Your task to perform on an android device: Search for the new Nintendo switch on Walmart. Image 0: 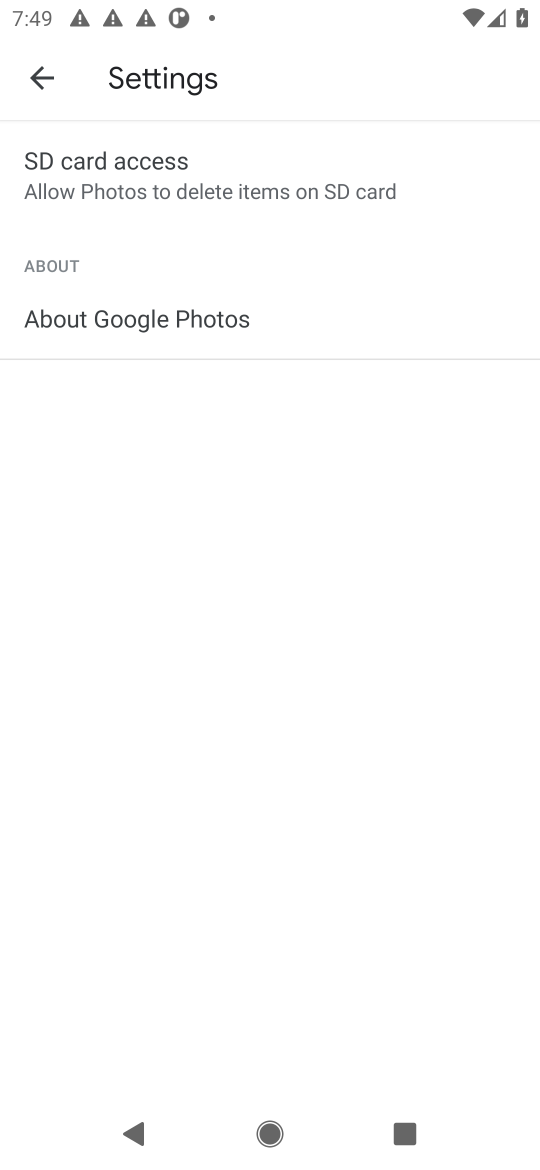
Step 0: press home button
Your task to perform on an android device: Search for the new Nintendo switch on Walmart. Image 1: 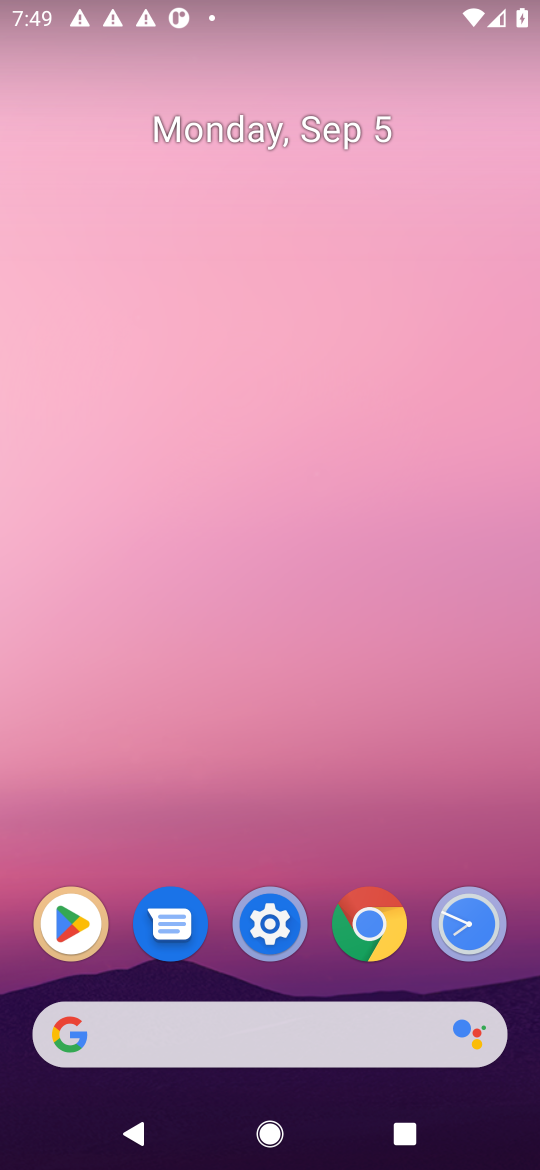
Step 1: click (388, 1048)
Your task to perform on an android device: Search for the new Nintendo switch on Walmart. Image 2: 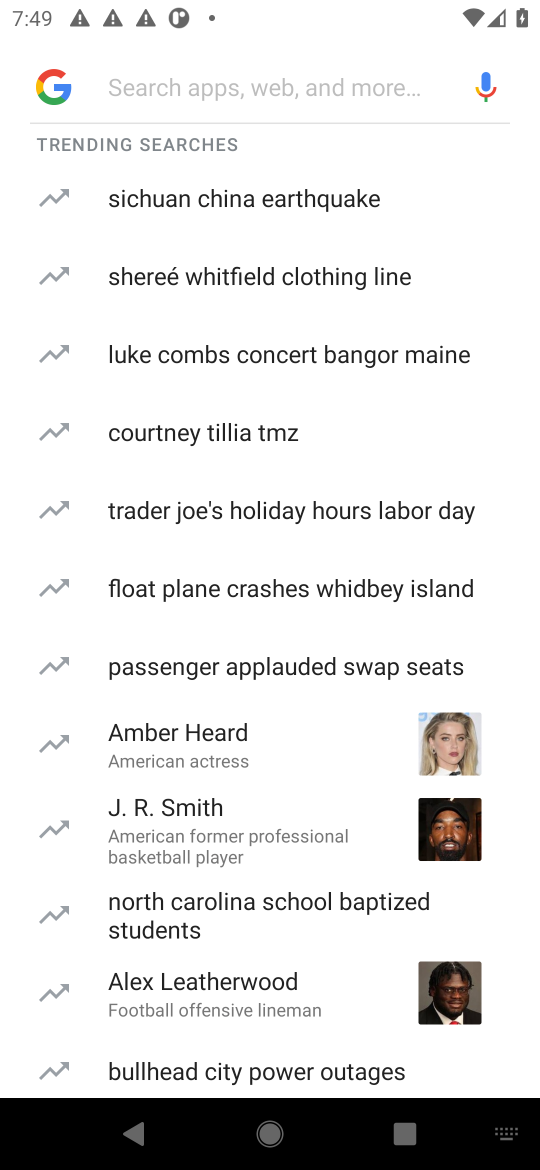
Step 2: press enter
Your task to perform on an android device: Search for the new Nintendo switch on Walmart. Image 3: 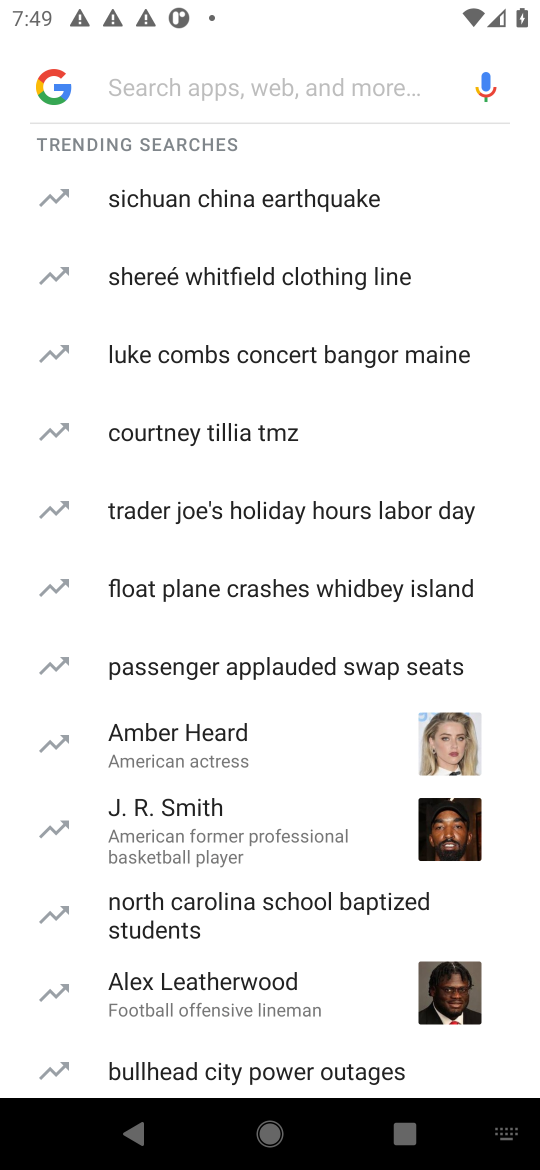
Step 3: type "walmart"
Your task to perform on an android device: Search for the new Nintendo switch on Walmart. Image 4: 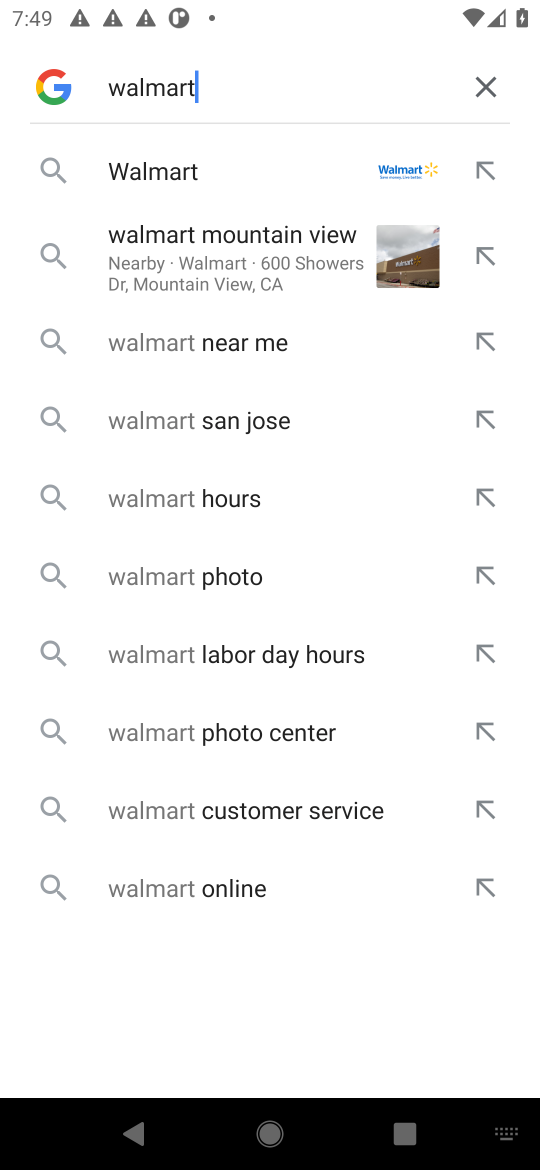
Step 4: click (239, 166)
Your task to perform on an android device: Search for the new Nintendo switch on Walmart. Image 5: 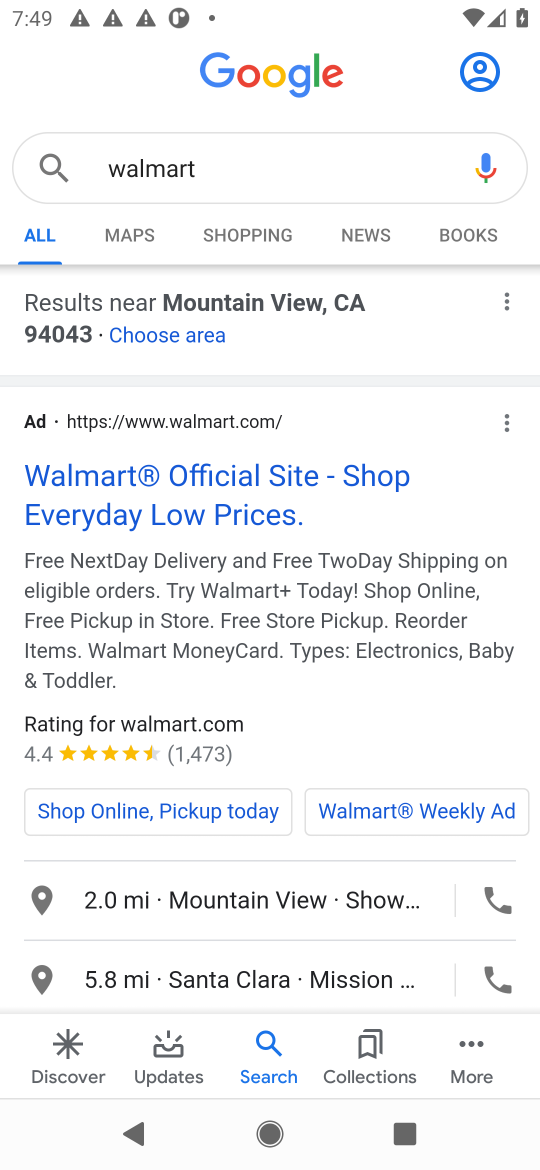
Step 5: click (306, 509)
Your task to perform on an android device: Search for the new Nintendo switch on Walmart. Image 6: 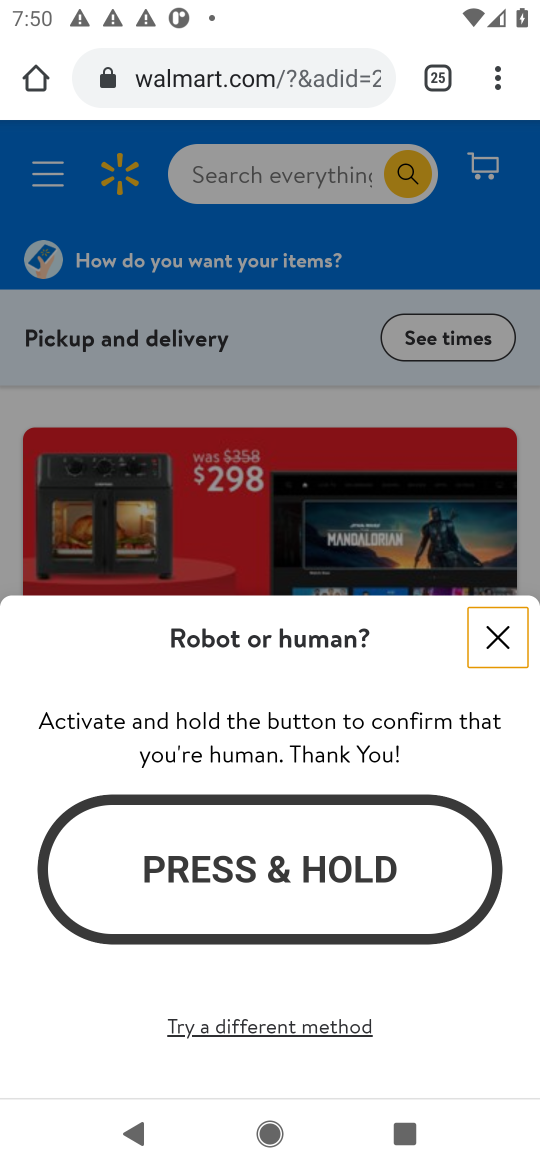
Step 6: click (495, 636)
Your task to perform on an android device: Search for the new Nintendo switch on Walmart. Image 7: 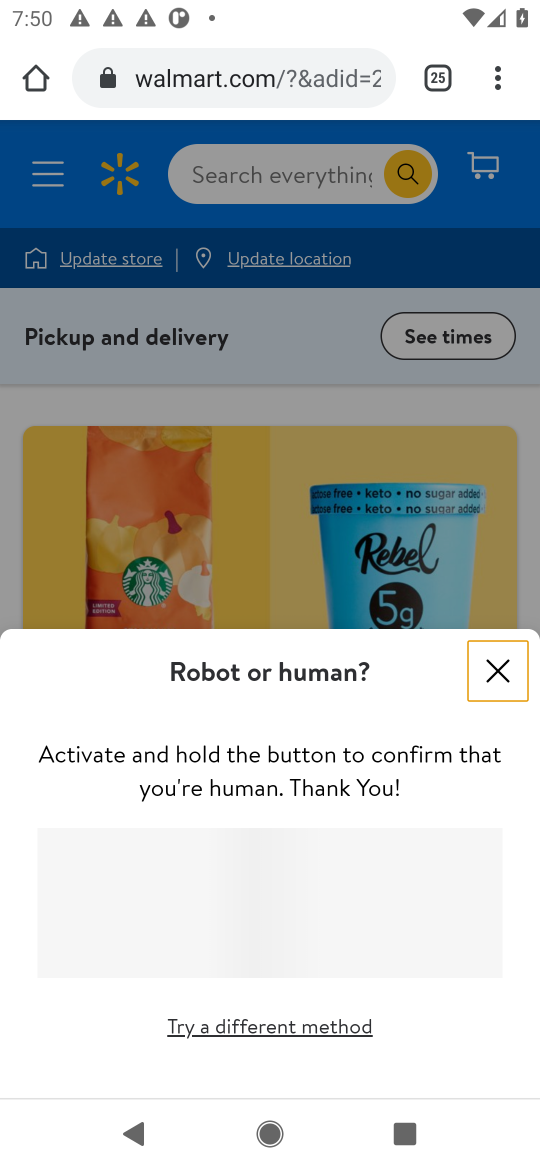
Step 7: click (250, 167)
Your task to perform on an android device: Search for the new Nintendo switch on Walmart. Image 8: 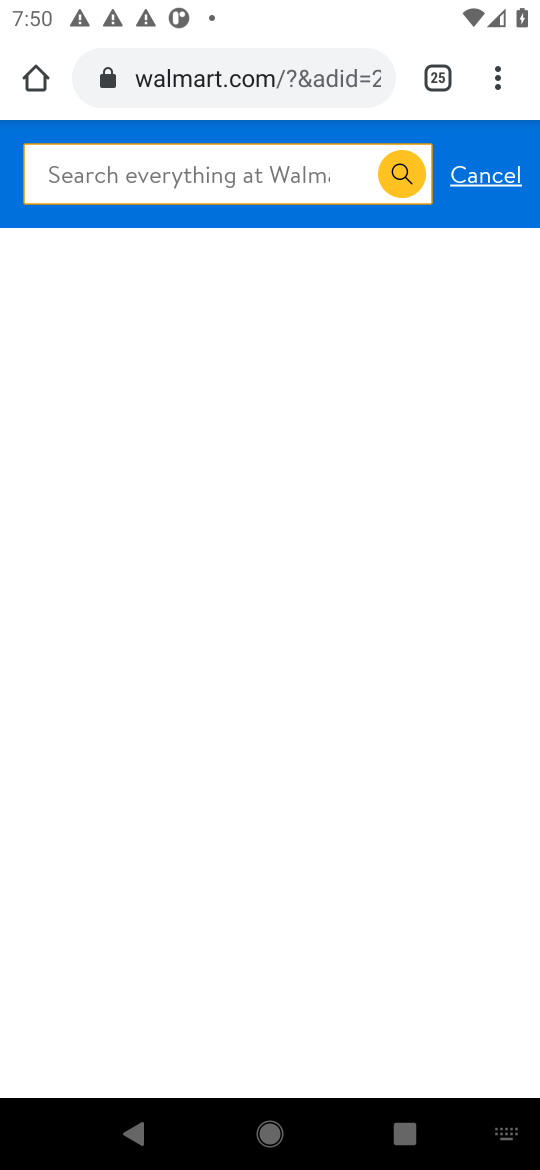
Step 8: type "new nintendo switch"
Your task to perform on an android device: Search for the new Nintendo switch on Walmart. Image 9: 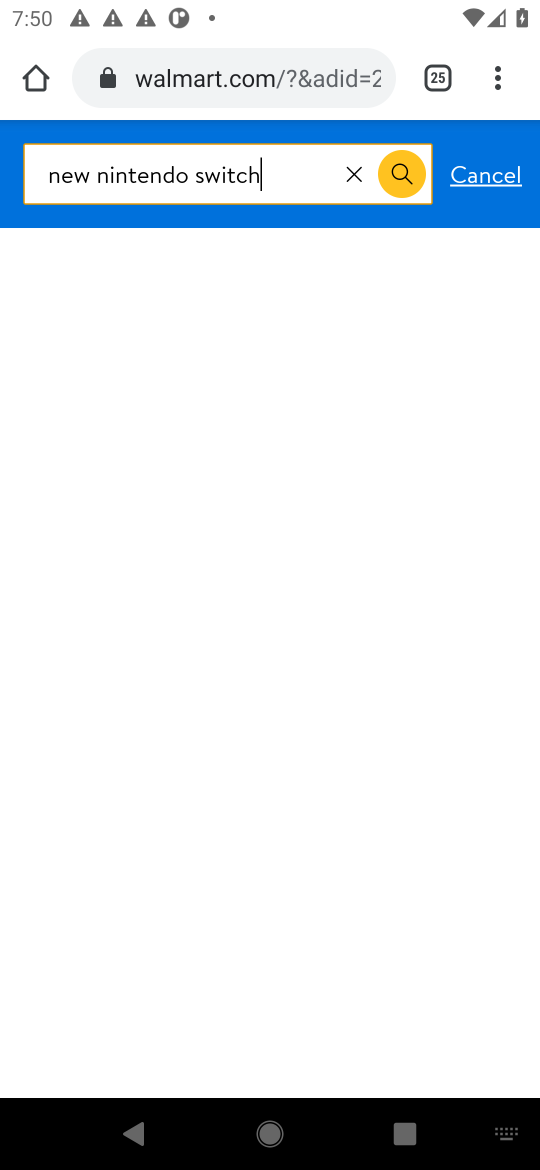
Step 9: press enter
Your task to perform on an android device: Search for the new Nintendo switch on Walmart. Image 10: 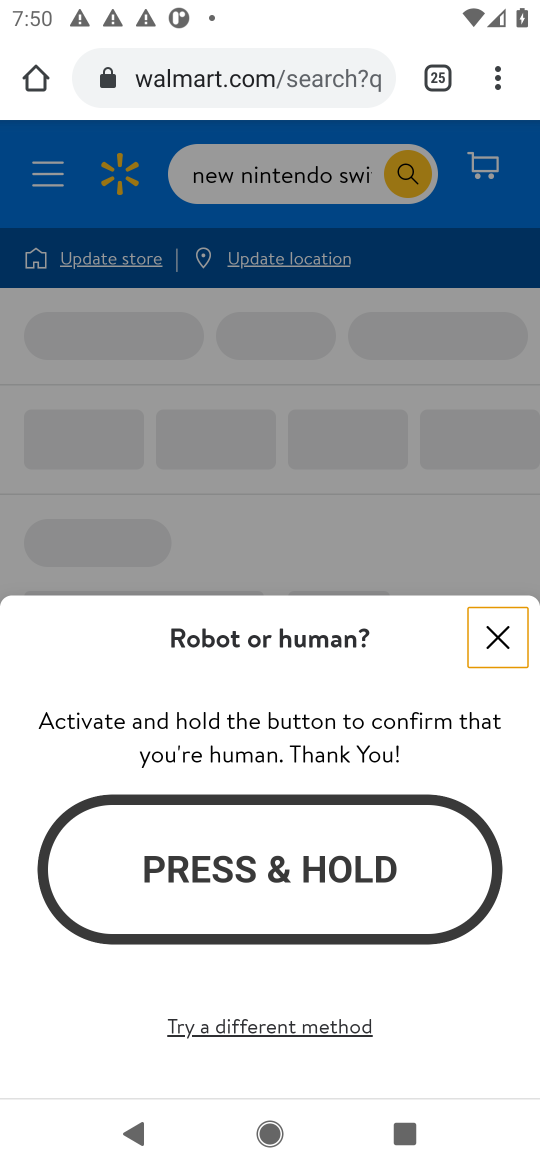
Step 10: click (498, 641)
Your task to perform on an android device: Search for the new Nintendo switch on Walmart. Image 11: 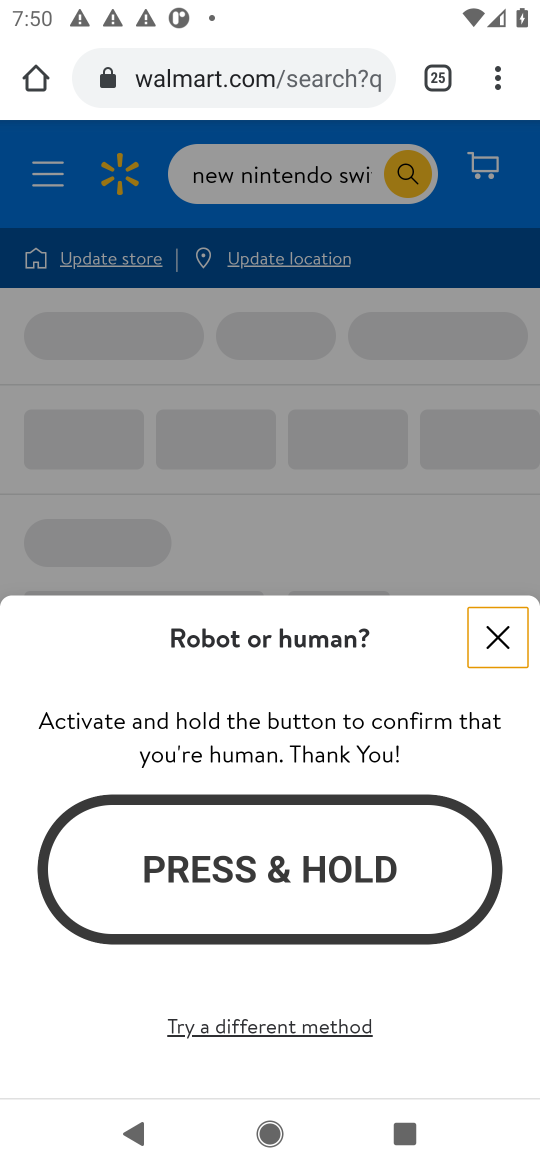
Step 11: click (506, 644)
Your task to perform on an android device: Search for the new Nintendo switch on Walmart. Image 12: 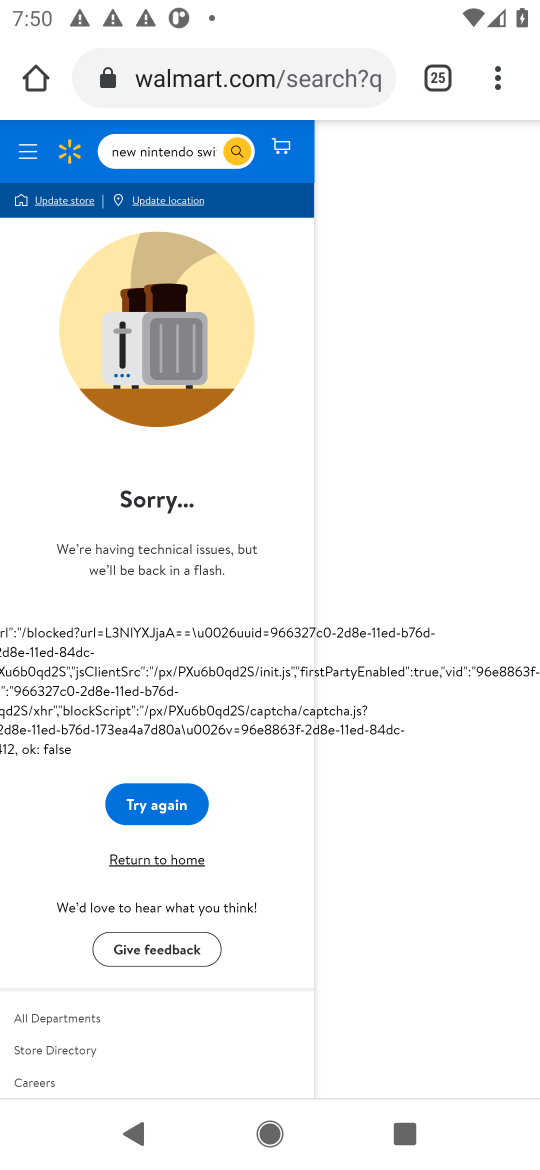
Step 12: task complete